Your task to perform on an android device: Add dell xps to the cart on ebay.com, then select checkout. Image 0: 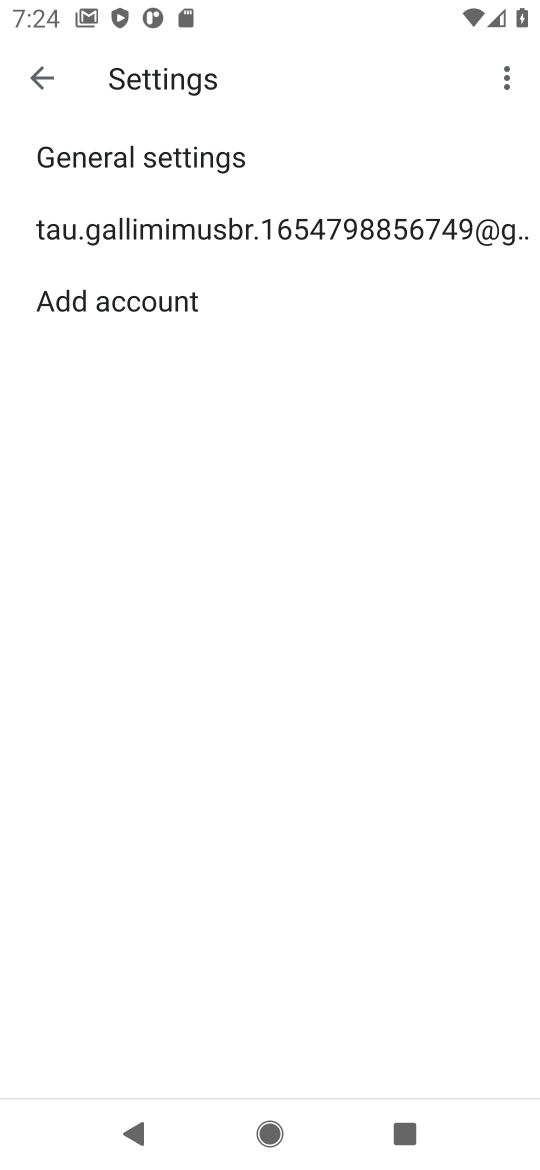
Step 0: press home button
Your task to perform on an android device: Add dell xps to the cart on ebay.com, then select checkout. Image 1: 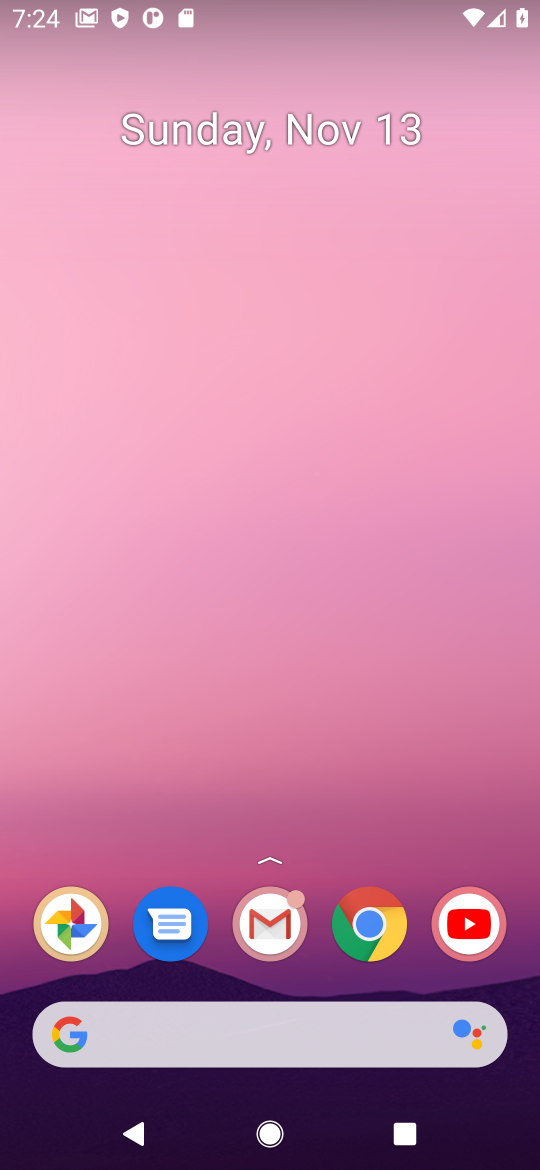
Step 1: click (371, 913)
Your task to perform on an android device: Add dell xps to the cart on ebay.com, then select checkout. Image 2: 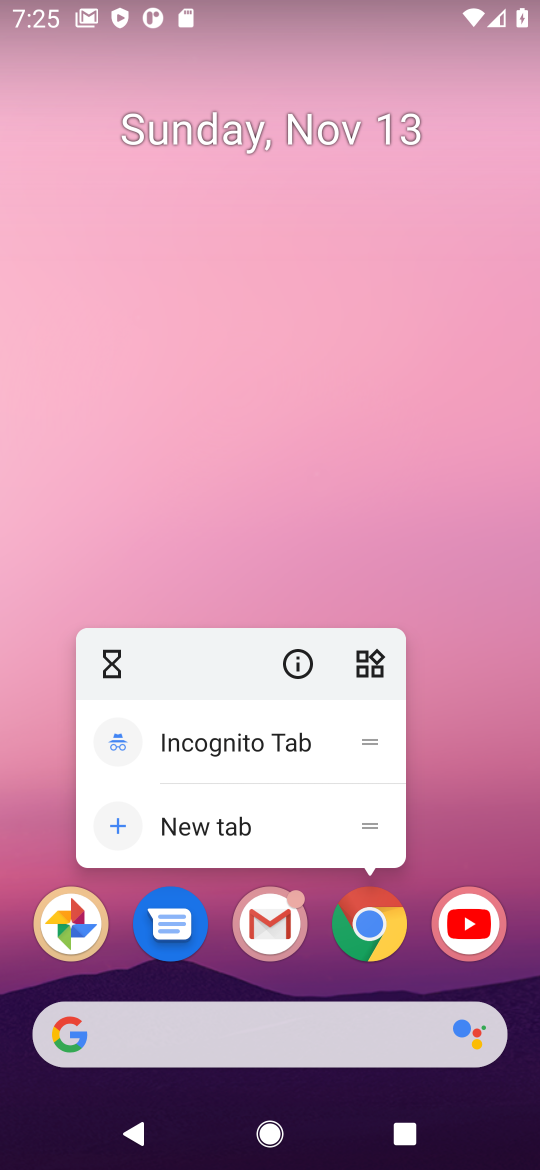
Step 2: click (371, 915)
Your task to perform on an android device: Add dell xps to the cart on ebay.com, then select checkout. Image 3: 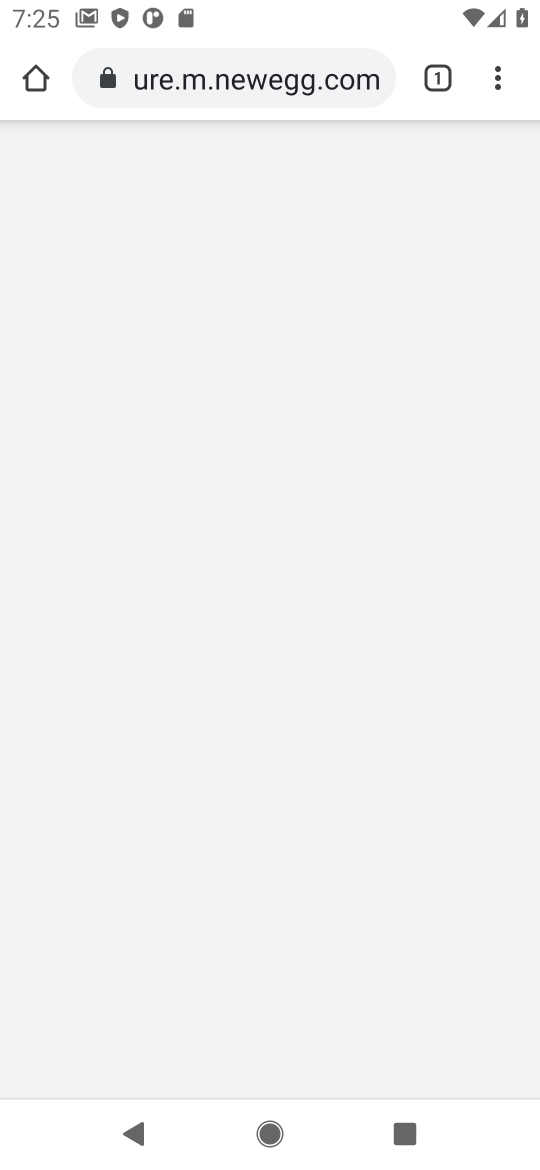
Step 3: click (360, 73)
Your task to perform on an android device: Add dell xps to the cart on ebay.com, then select checkout. Image 4: 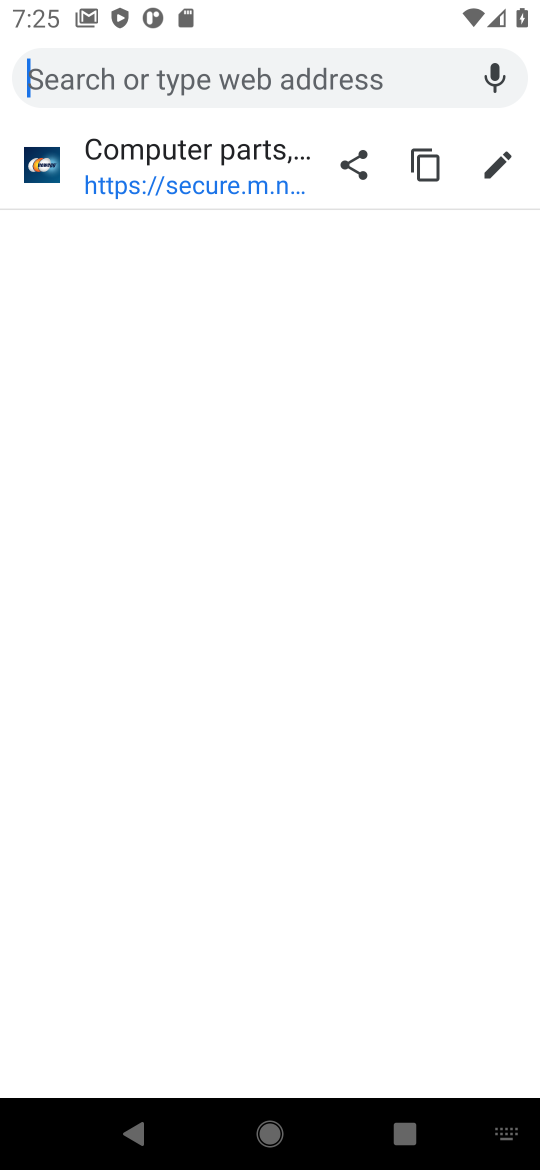
Step 4: click (418, 64)
Your task to perform on an android device: Add dell xps to the cart on ebay.com, then select checkout. Image 5: 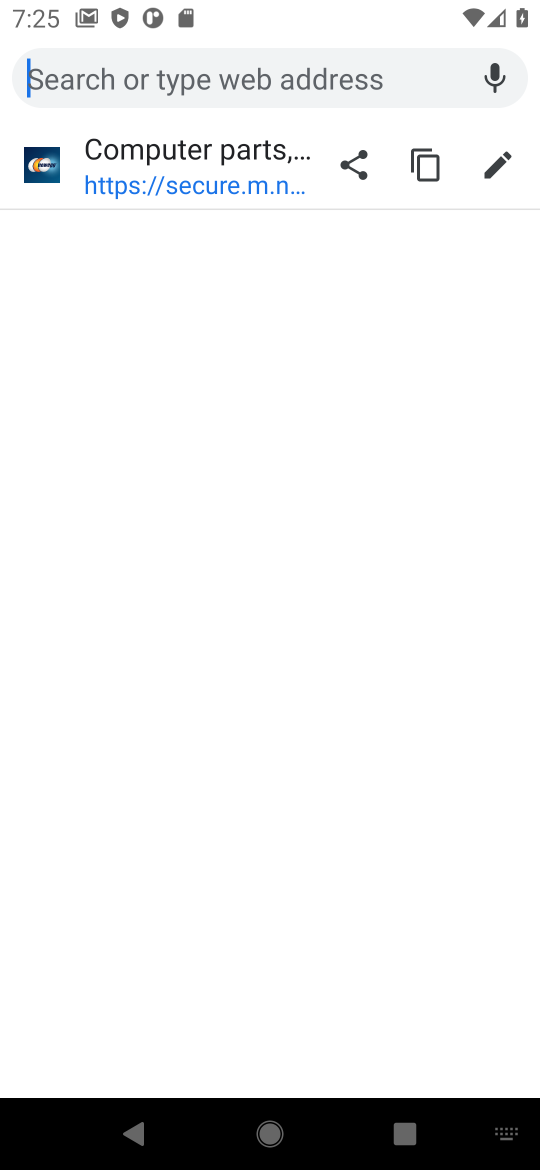
Step 5: type "ebay.com"
Your task to perform on an android device: Add dell xps to the cart on ebay.com, then select checkout. Image 6: 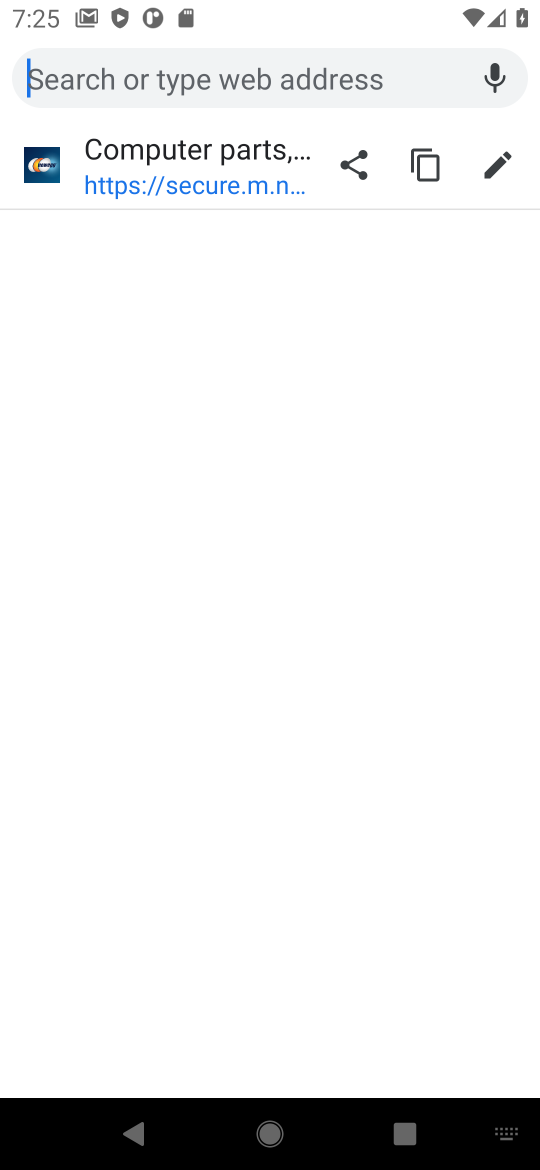
Step 6: click (486, 596)
Your task to perform on an android device: Add dell xps to the cart on ebay.com, then select checkout. Image 7: 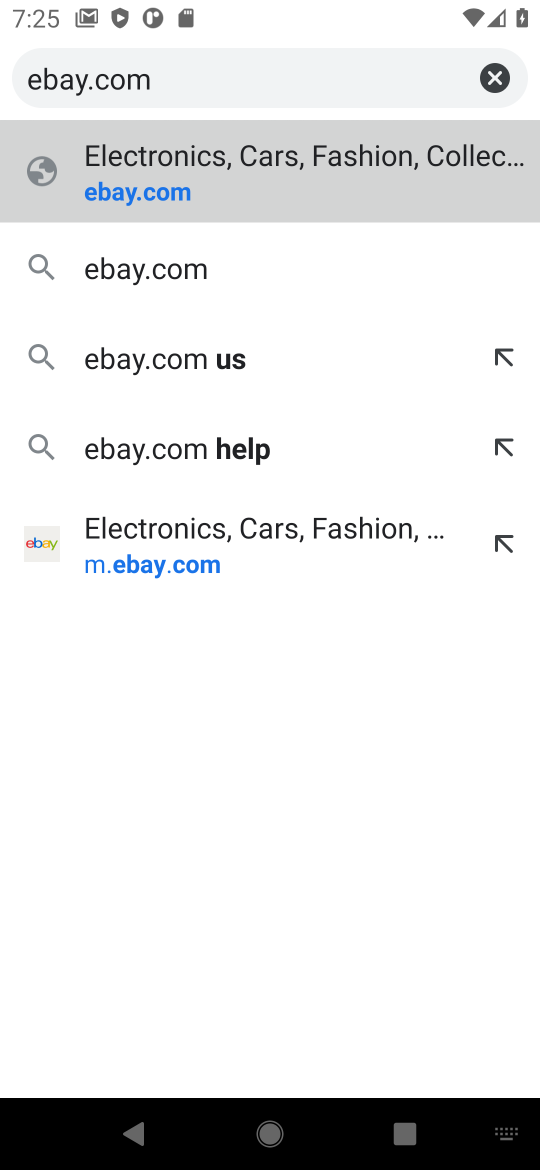
Step 7: press enter
Your task to perform on an android device: Add dell xps to the cart on ebay.com, then select checkout. Image 8: 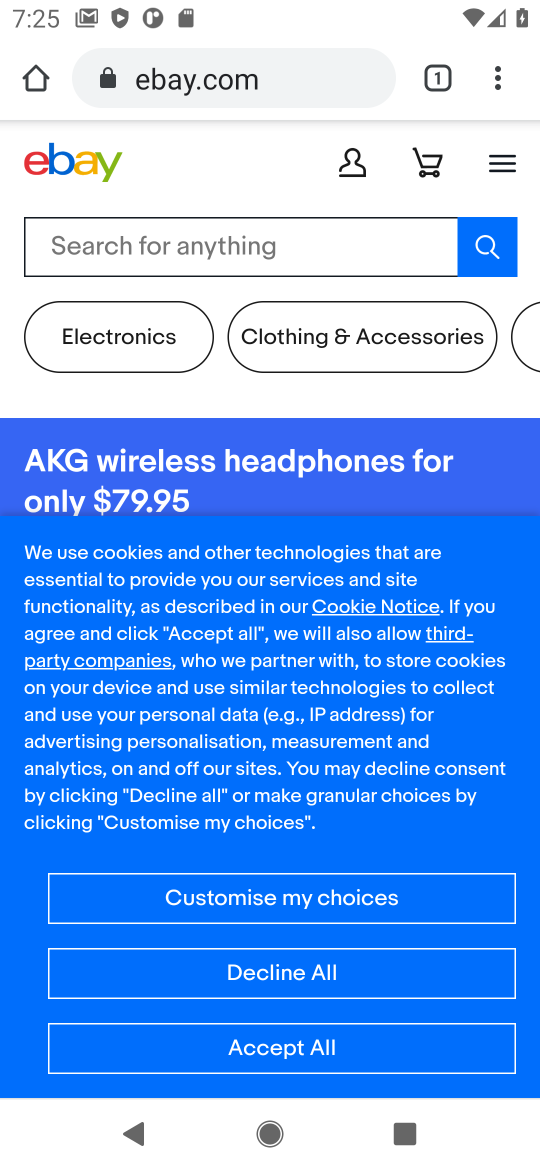
Step 8: click (126, 238)
Your task to perform on an android device: Add dell xps to the cart on ebay.com, then select checkout. Image 9: 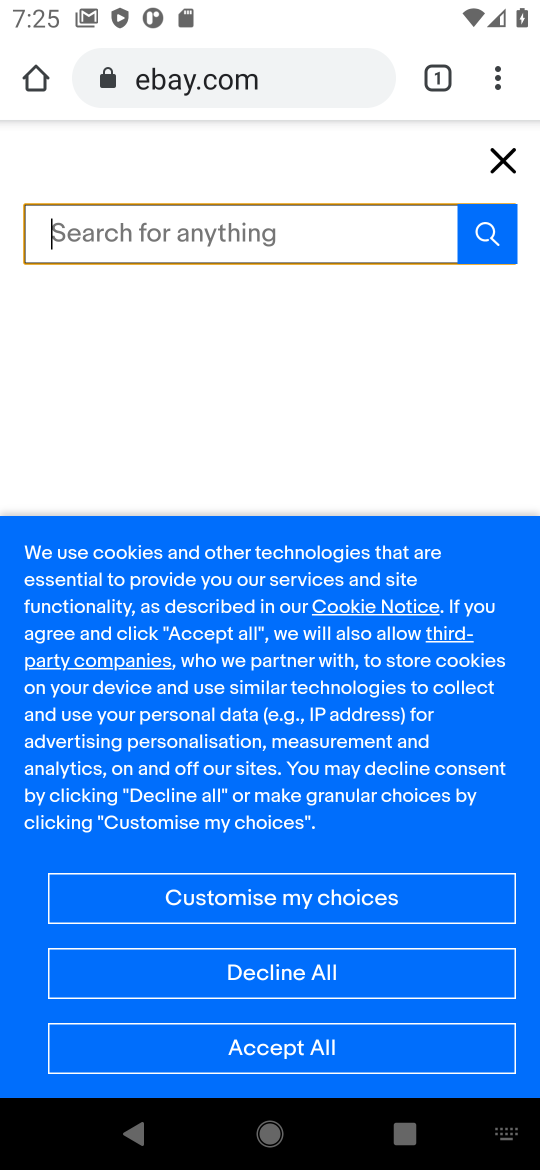
Step 9: type "dell xps "
Your task to perform on an android device: Add dell xps to the cart on ebay.com, then select checkout. Image 10: 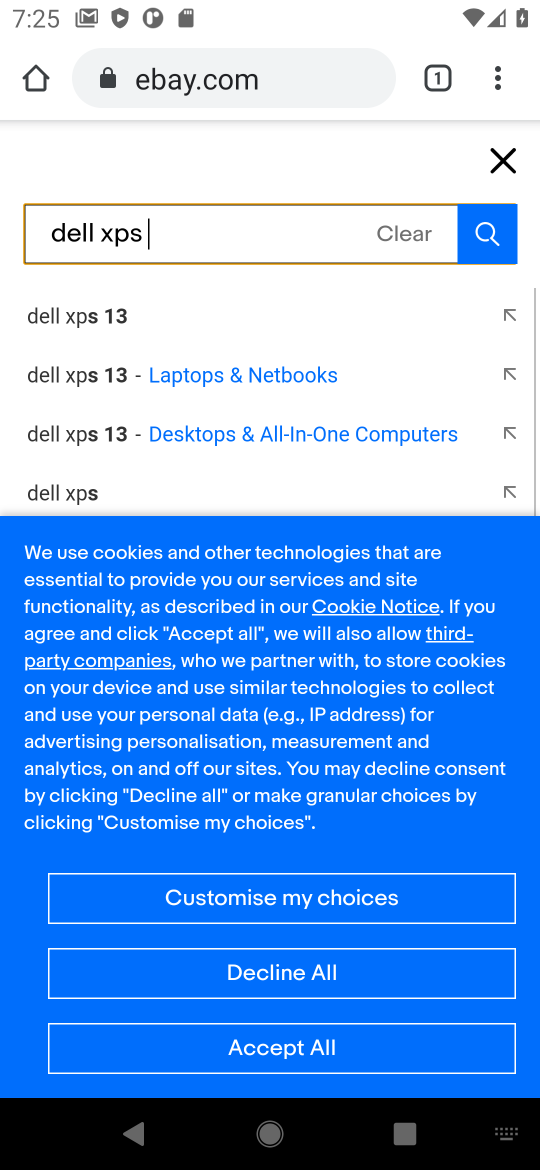
Step 10: press enter
Your task to perform on an android device: Add dell xps to the cart on ebay.com, then select checkout. Image 11: 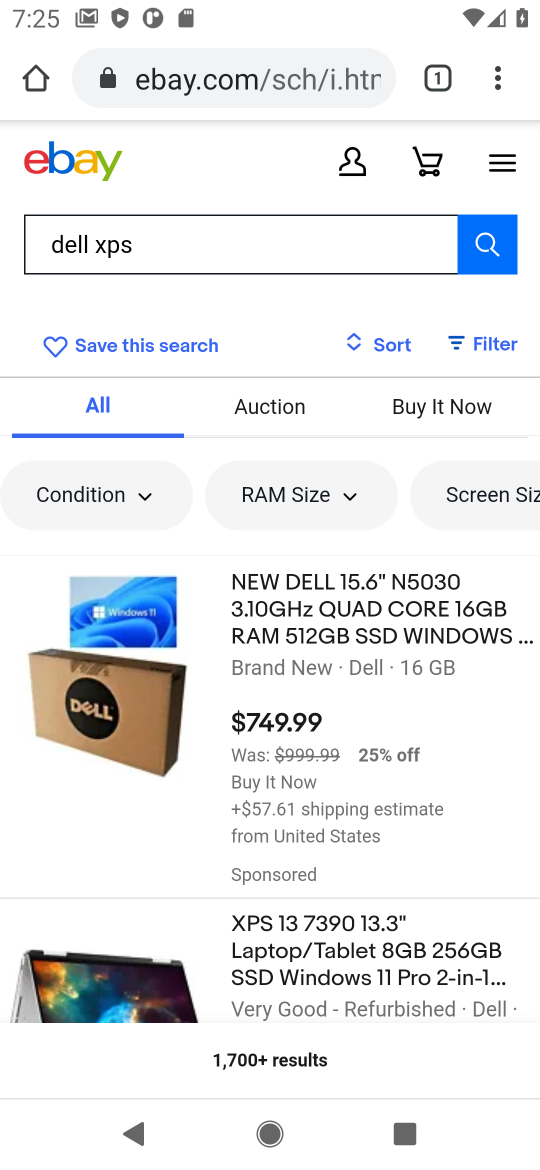
Step 11: drag from (275, 992) to (443, 176)
Your task to perform on an android device: Add dell xps to the cart on ebay.com, then select checkout. Image 12: 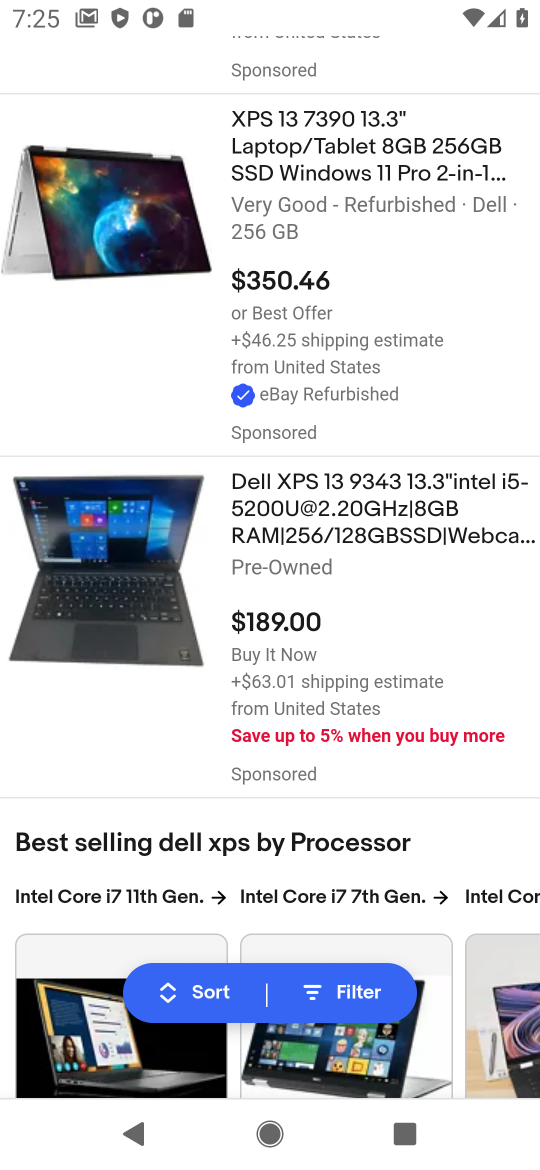
Step 12: click (305, 506)
Your task to perform on an android device: Add dell xps to the cart on ebay.com, then select checkout. Image 13: 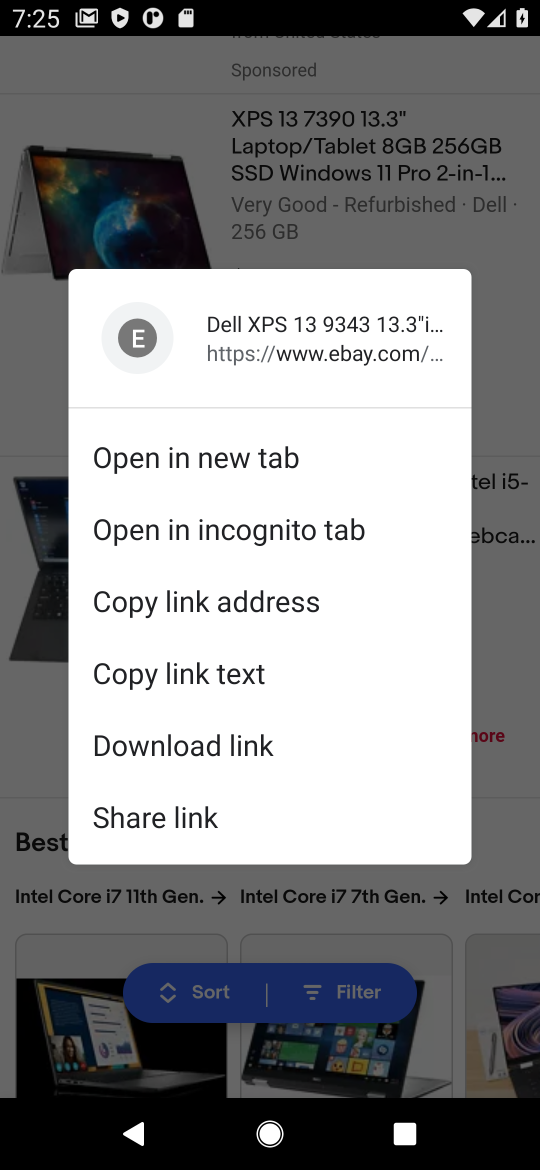
Step 13: click (504, 548)
Your task to perform on an android device: Add dell xps to the cart on ebay.com, then select checkout. Image 14: 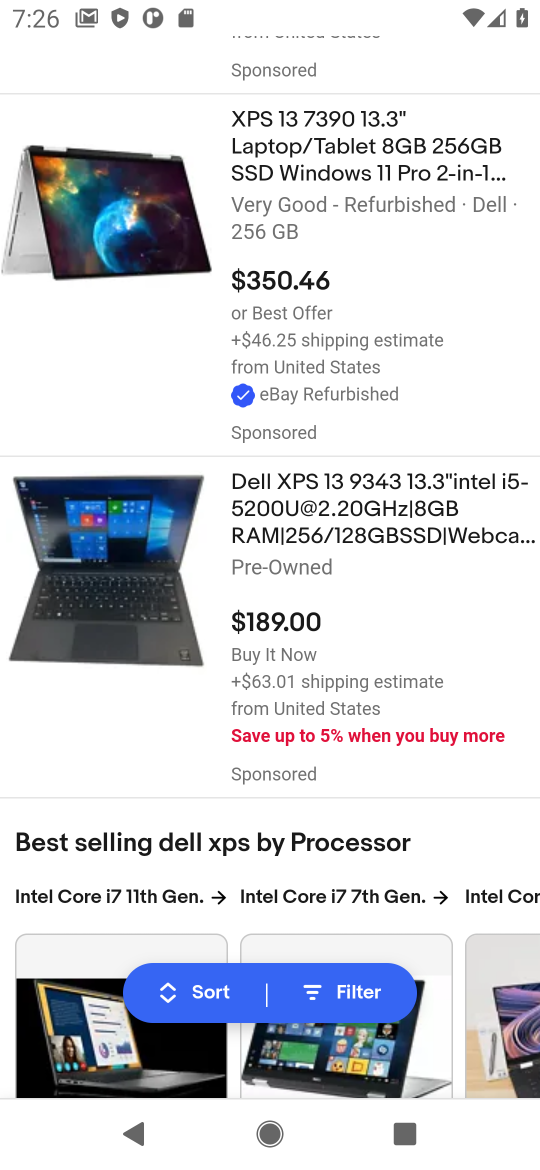
Step 14: drag from (421, 198) to (442, 359)
Your task to perform on an android device: Add dell xps to the cart on ebay.com, then select checkout. Image 15: 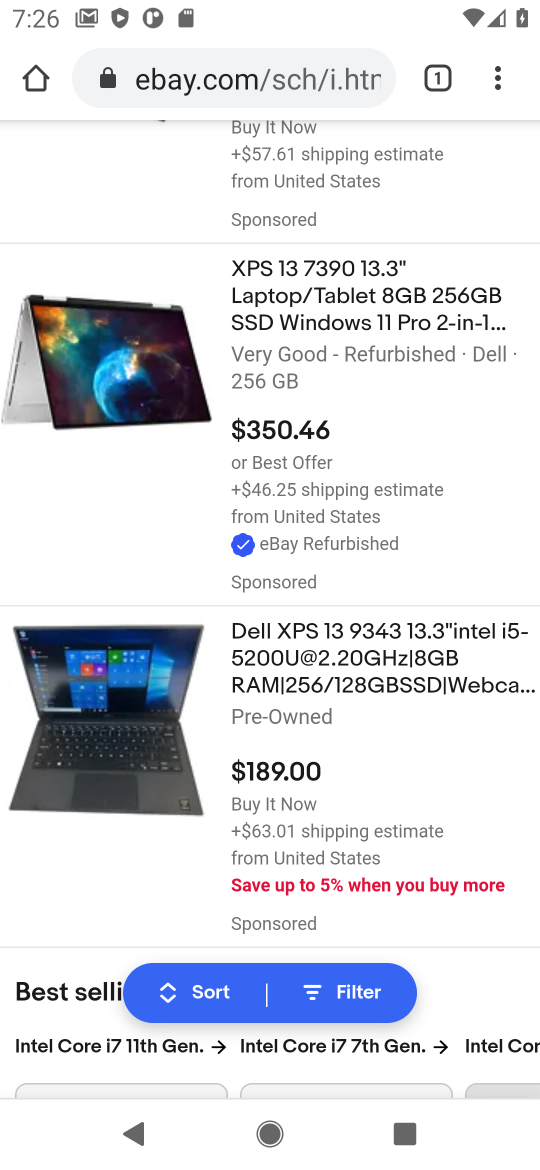
Step 15: click (343, 678)
Your task to perform on an android device: Add dell xps to the cart on ebay.com, then select checkout. Image 16: 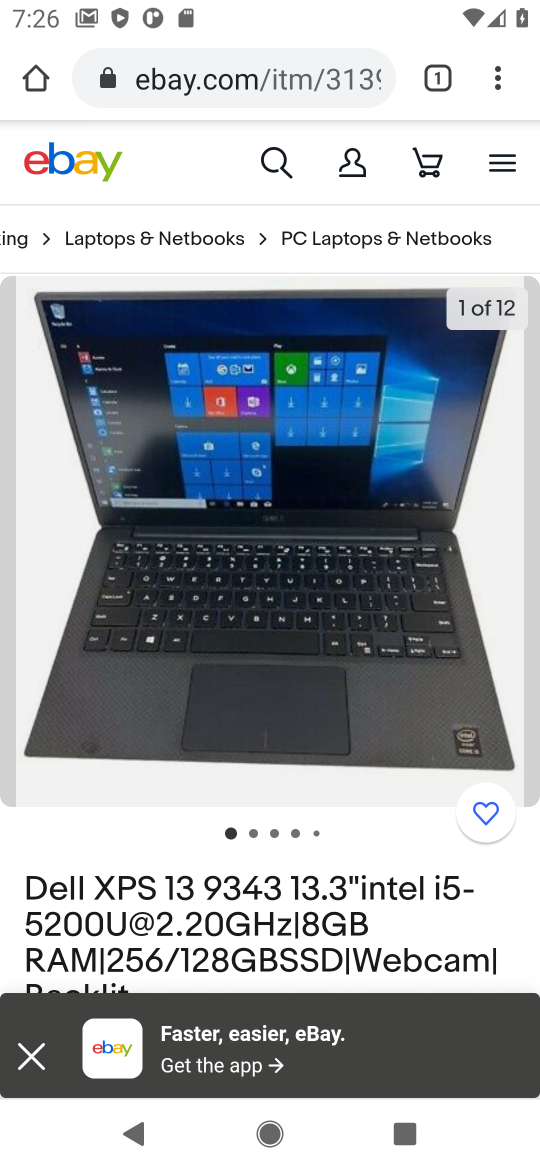
Step 16: drag from (329, 904) to (456, 349)
Your task to perform on an android device: Add dell xps to the cart on ebay.com, then select checkout. Image 17: 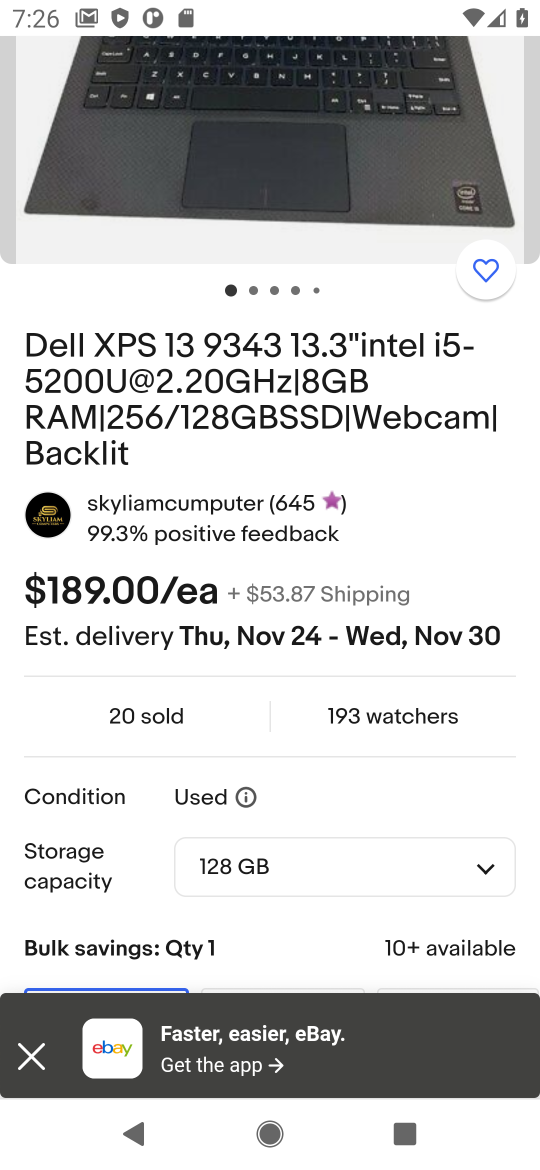
Step 17: drag from (299, 846) to (311, 333)
Your task to perform on an android device: Add dell xps to the cart on ebay.com, then select checkout. Image 18: 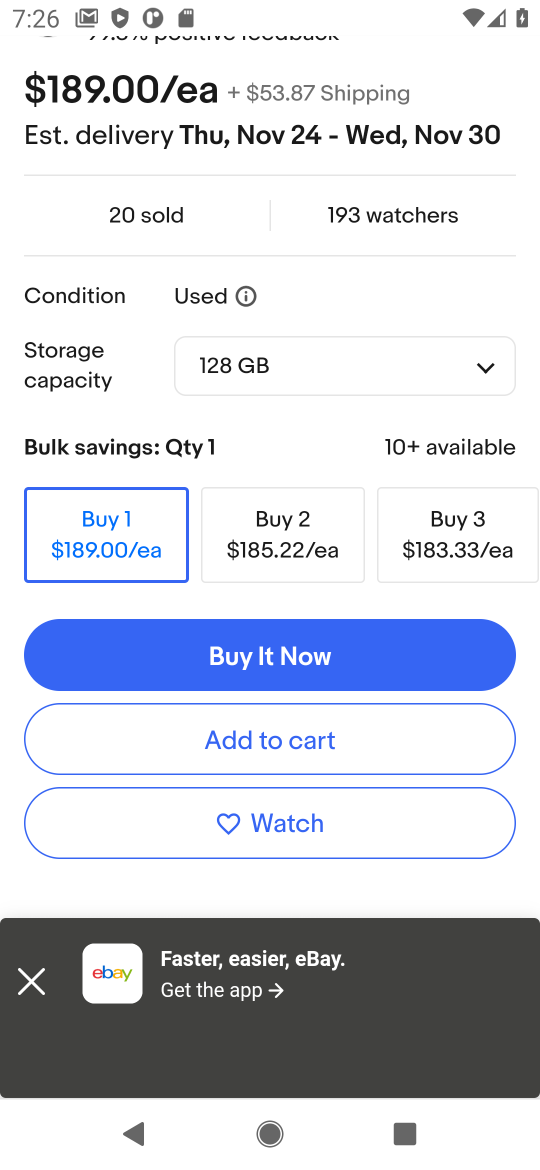
Step 18: click (303, 745)
Your task to perform on an android device: Add dell xps to the cart on ebay.com, then select checkout. Image 19: 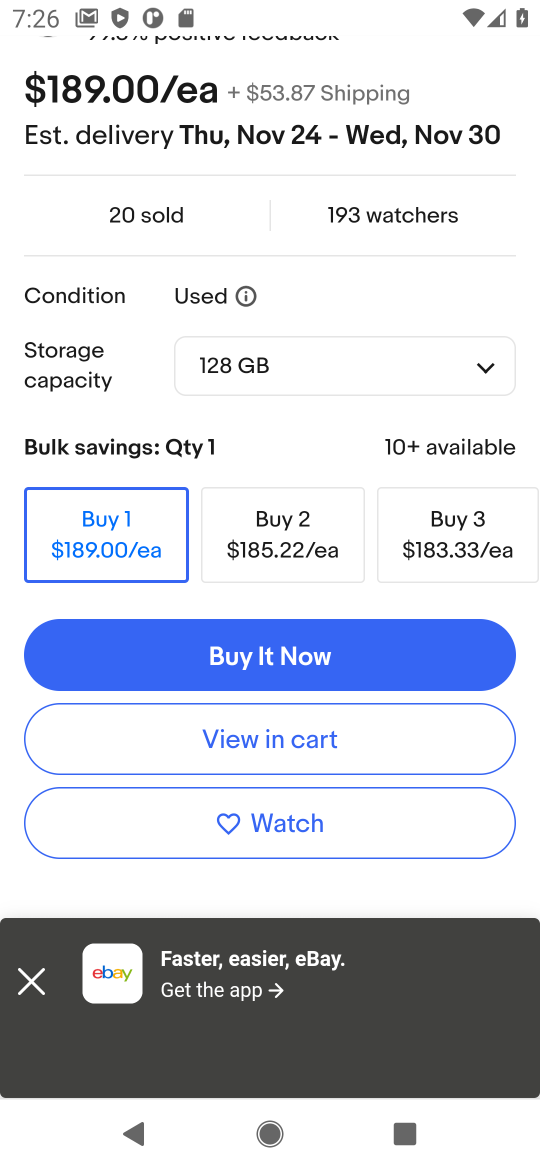
Step 19: click (275, 738)
Your task to perform on an android device: Add dell xps to the cart on ebay.com, then select checkout. Image 20: 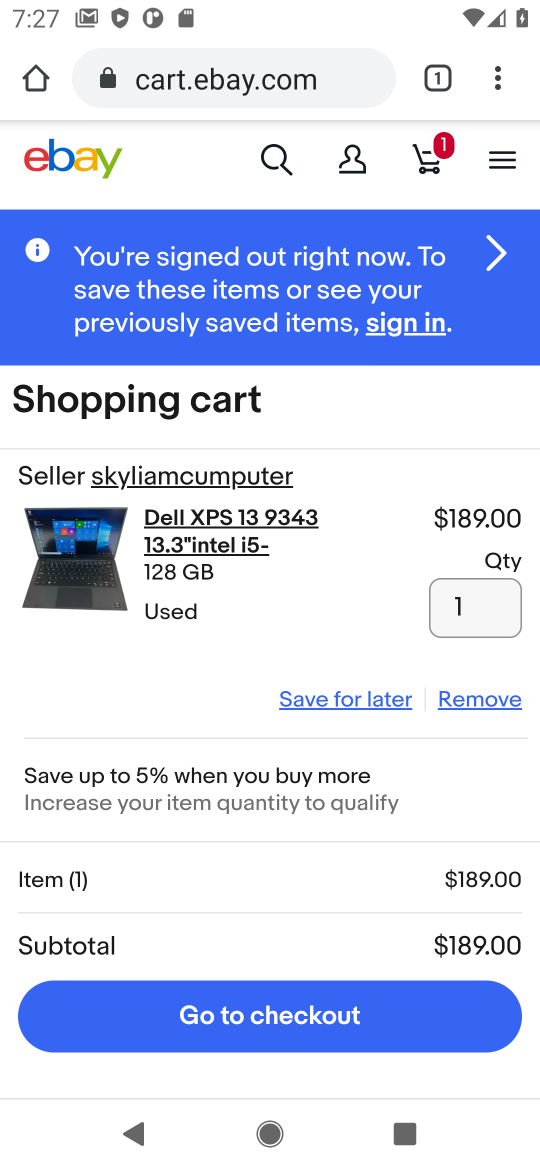
Step 20: click (280, 1017)
Your task to perform on an android device: Add dell xps to the cart on ebay.com, then select checkout. Image 21: 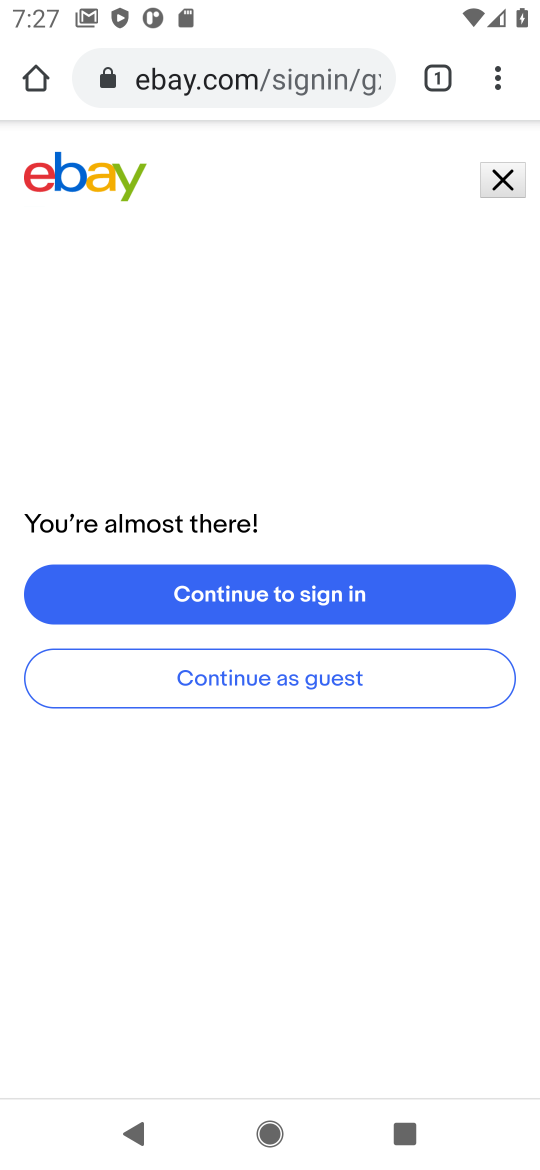
Step 21: task complete